Your task to perform on an android device: Find coffee shops on Maps Image 0: 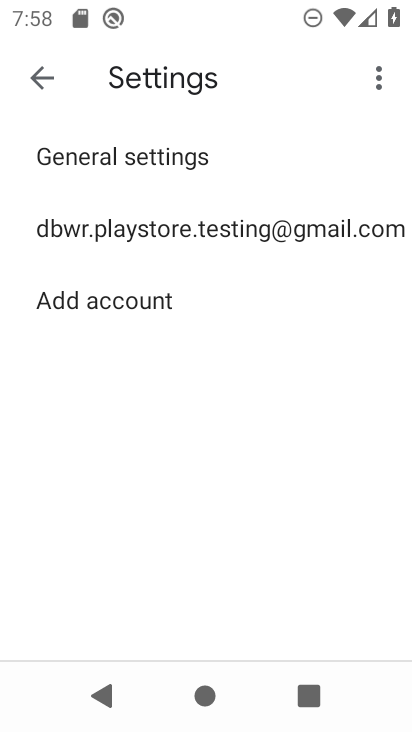
Step 0: press home button
Your task to perform on an android device: Find coffee shops on Maps Image 1: 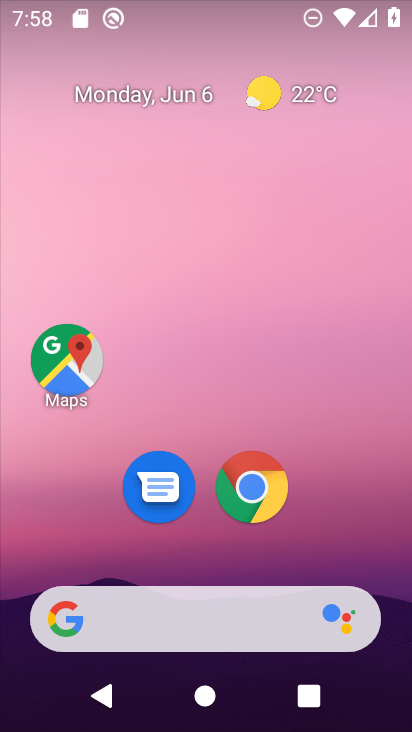
Step 1: drag from (396, 609) to (247, 41)
Your task to perform on an android device: Find coffee shops on Maps Image 2: 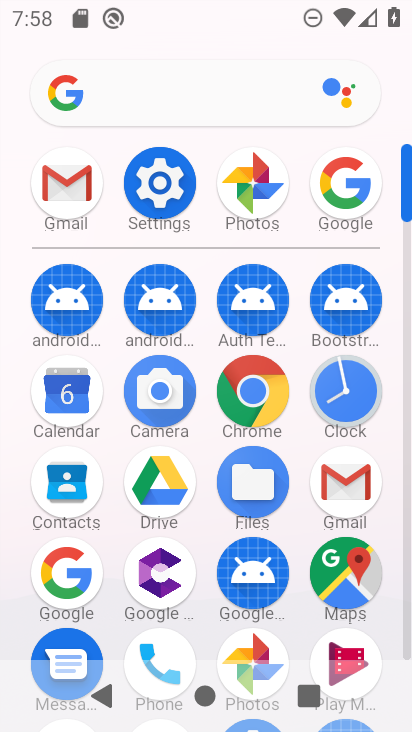
Step 2: click (340, 577)
Your task to perform on an android device: Find coffee shops on Maps Image 3: 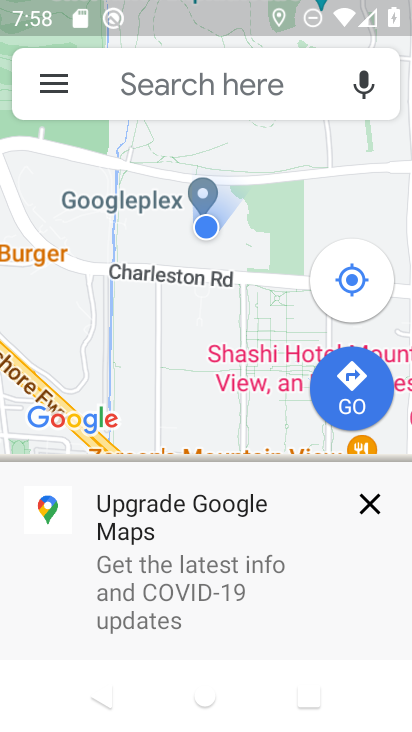
Step 3: click (167, 80)
Your task to perform on an android device: Find coffee shops on Maps Image 4: 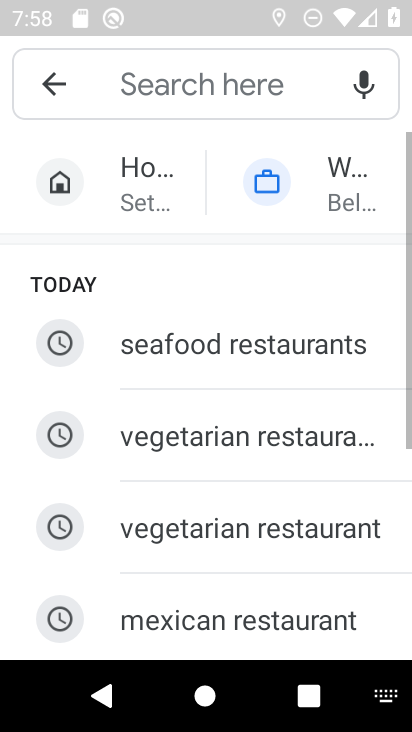
Step 4: drag from (181, 624) to (203, 84)
Your task to perform on an android device: Find coffee shops on Maps Image 5: 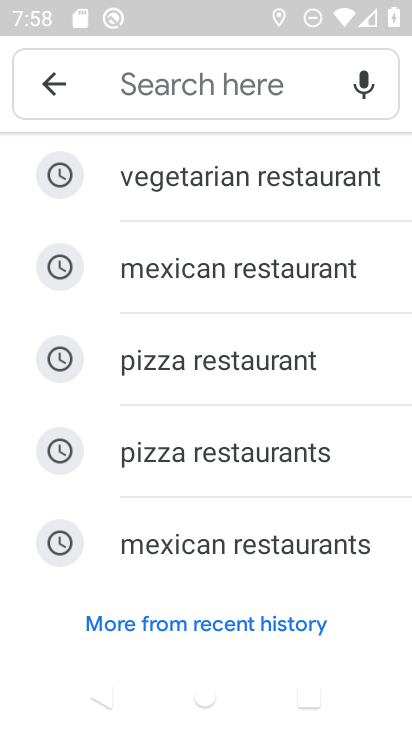
Step 5: click (172, 78)
Your task to perform on an android device: Find coffee shops on Maps Image 6: 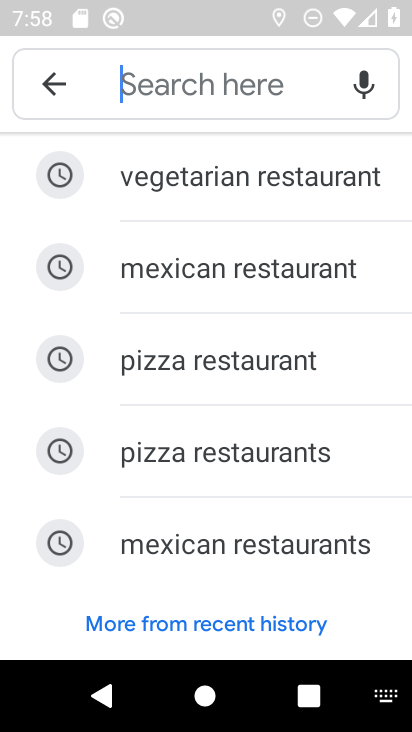
Step 6: type "coffee"
Your task to perform on an android device: Find coffee shops on Maps Image 7: 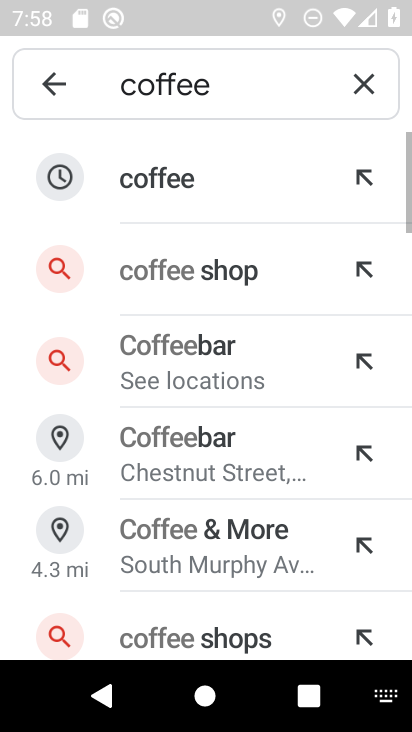
Step 7: click (192, 195)
Your task to perform on an android device: Find coffee shops on Maps Image 8: 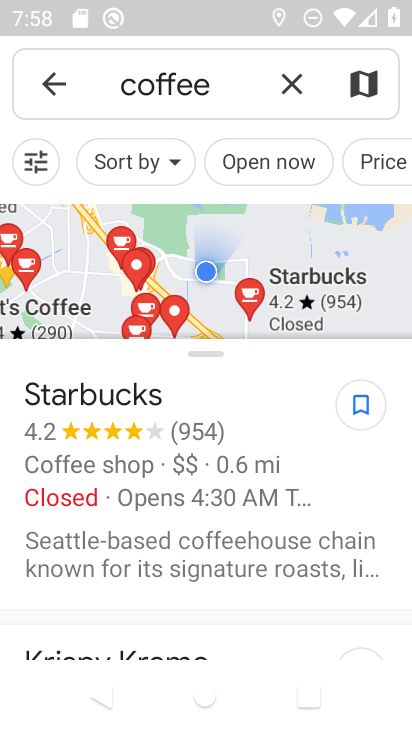
Step 8: task complete